Your task to perform on an android device: open chrome and create a bookmark for the current page Image 0: 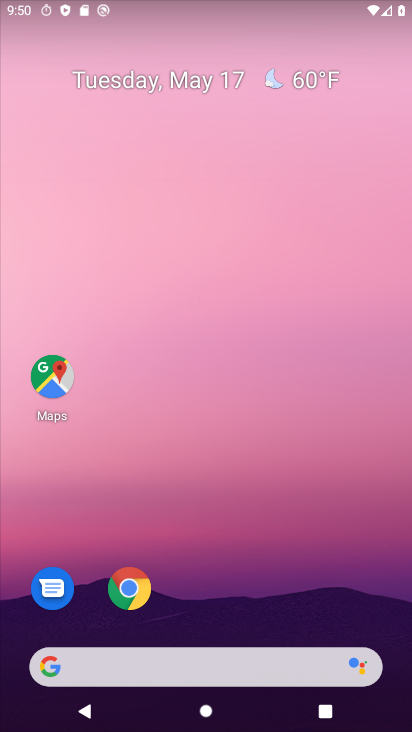
Step 0: drag from (266, 561) to (135, 69)
Your task to perform on an android device: open chrome and create a bookmark for the current page Image 1: 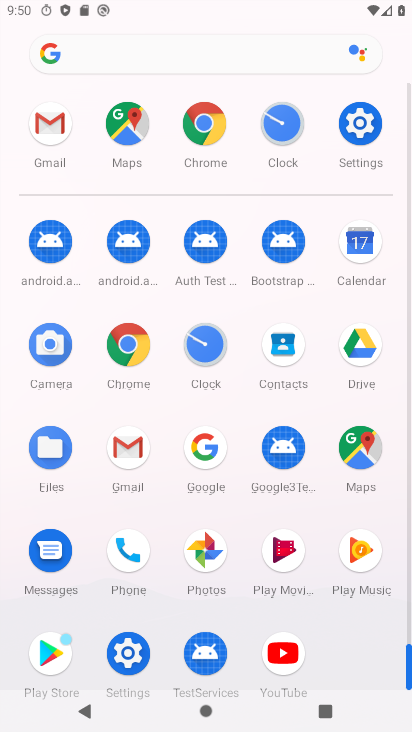
Step 1: click (200, 126)
Your task to perform on an android device: open chrome and create a bookmark for the current page Image 2: 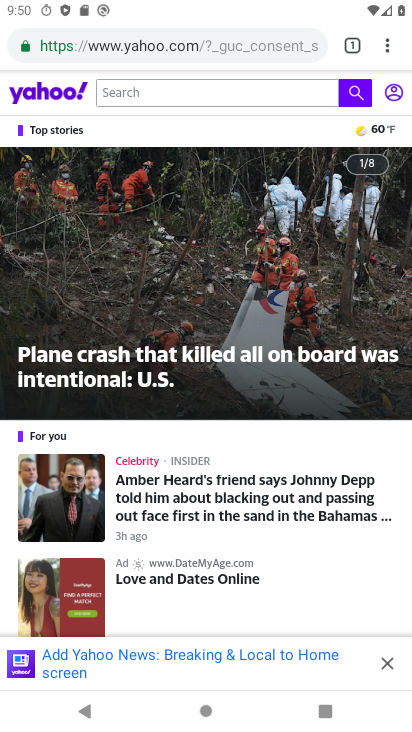
Step 2: drag from (385, 39) to (218, 79)
Your task to perform on an android device: open chrome and create a bookmark for the current page Image 3: 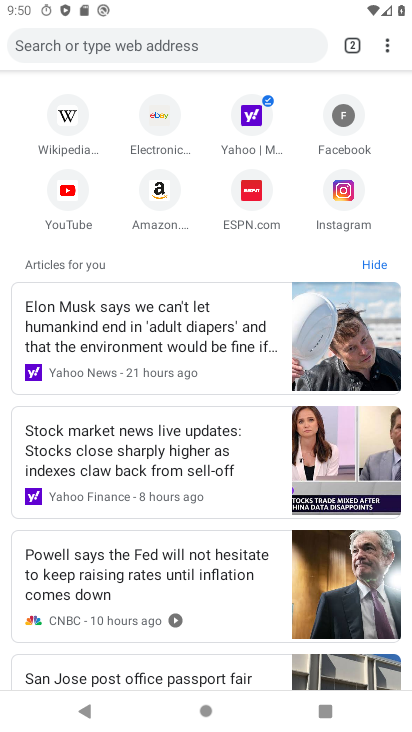
Step 3: click (52, 43)
Your task to perform on an android device: open chrome and create a bookmark for the current page Image 4: 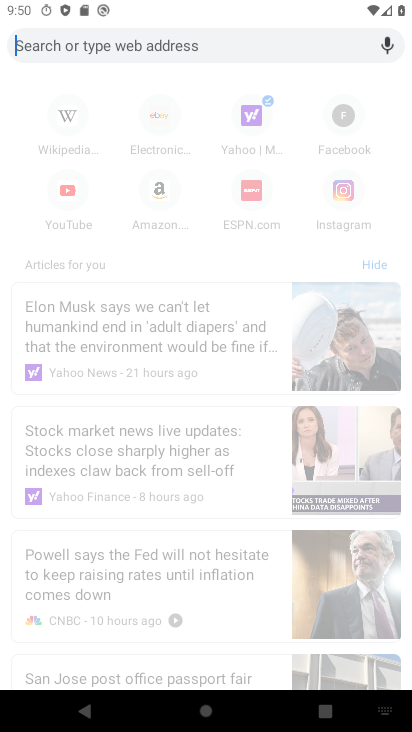
Step 4: type "www.snapdeal.com"
Your task to perform on an android device: open chrome and create a bookmark for the current page Image 5: 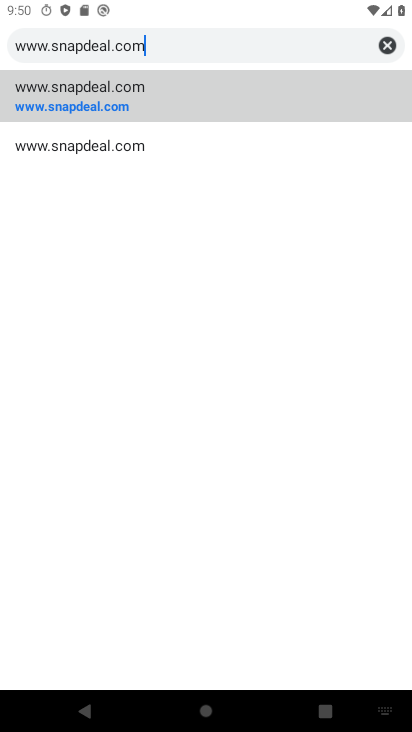
Step 5: drag from (365, 140) to (91, 82)
Your task to perform on an android device: open chrome and create a bookmark for the current page Image 6: 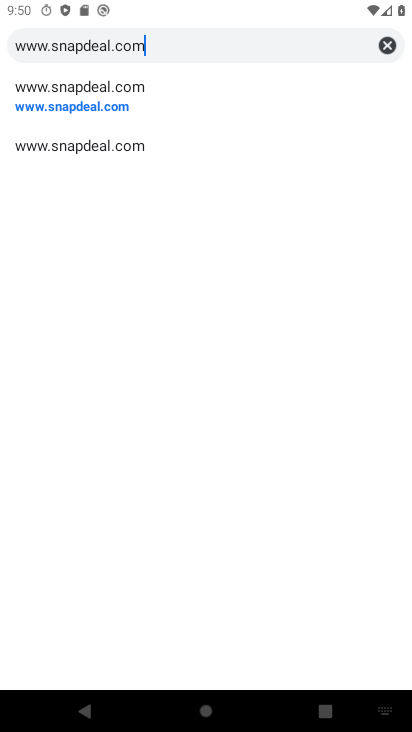
Step 6: click (73, 100)
Your task to perform on an android device: open chrome and create a bookmark for the current page Image 7: 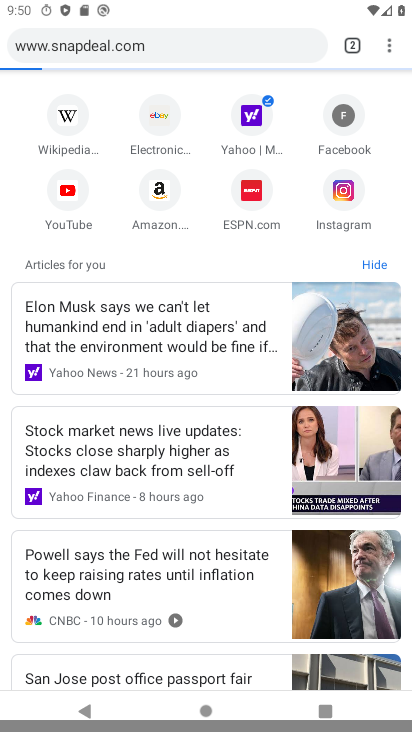
Step 7: drag from (365, 140) to (69, 95)
Your task to perform on an android device: open chrome and create a bookmark for the current page Image 8: 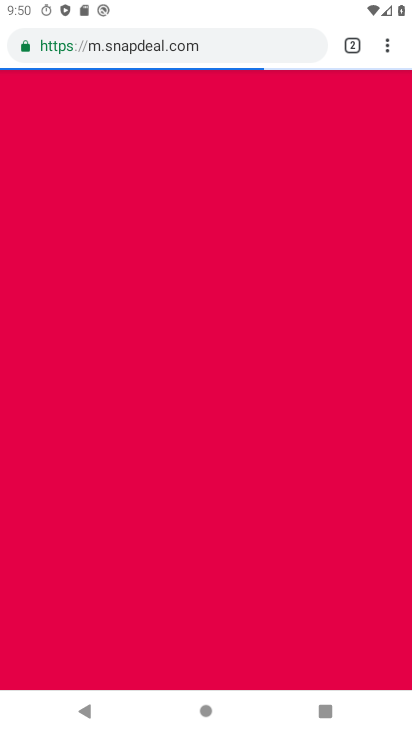
Step 8: drag from (365, 140) to (69, 88)
Your task to perform on an android device: open chrome and create a bookmark for the current page Image 9: 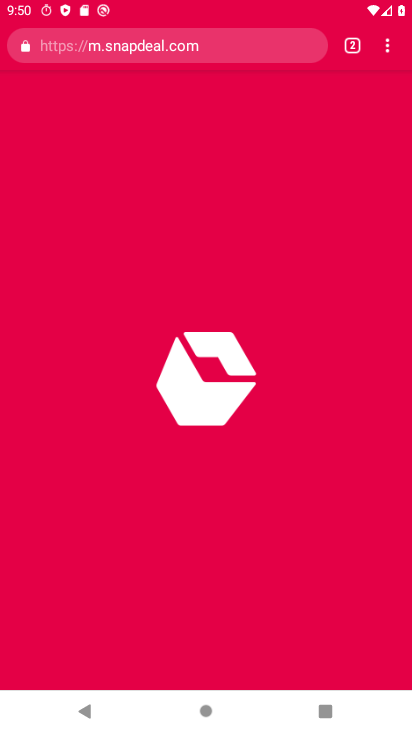
Step 9: click (376, 49)
Your task to perform on an android device: open chrome and create a bookmark for the current page Image 10: 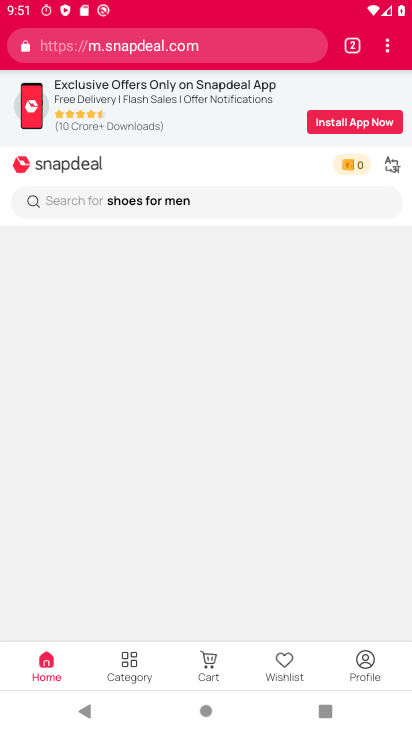
Step 10: click (377, 49)
Your task to perform on an android device: open chrome and create a bookmark for the current page Image 11: 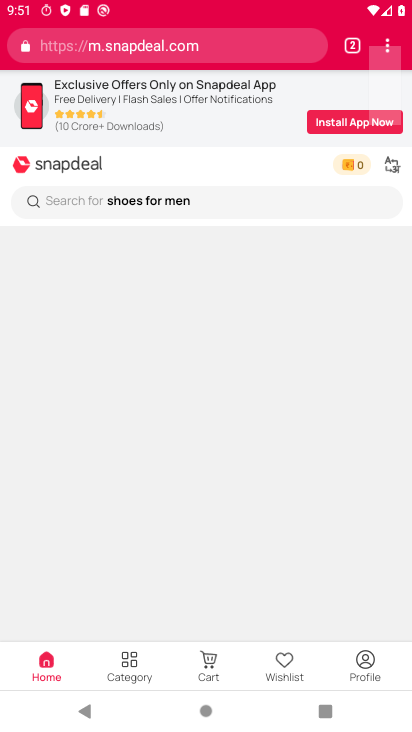
Step 11: click (404, 22)
Your task to perform on an android device: open chrome and create a bookmark for the current page Image 12: 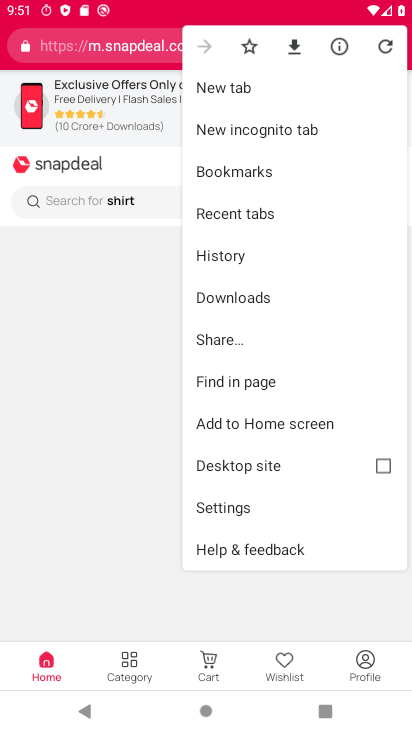
Step 12: drag from (384, 37) to (203, 166)
Your task to perform on an android device: open chrome and create a bookmark for the current page Image 13: 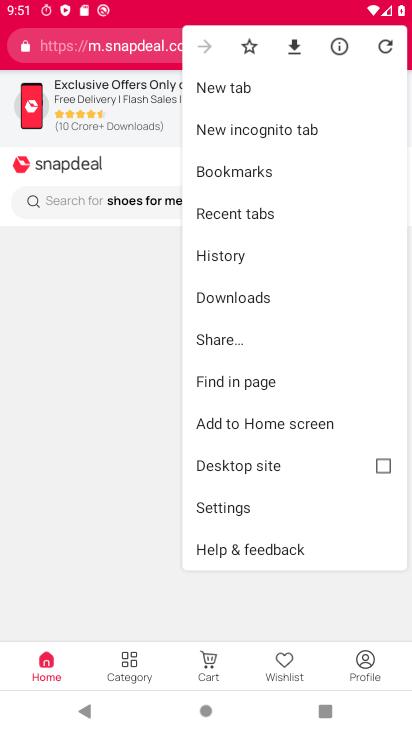
Step 13: click (203, 166)
Your task to perform on an android device: open chrome and create a bookmark for the current page Image 14: 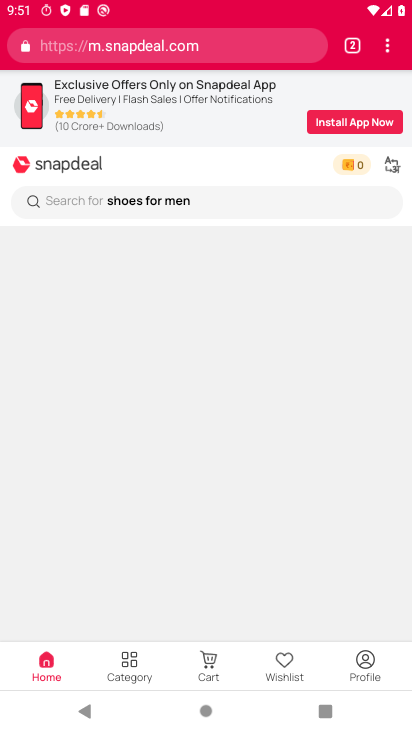
Step 14: click (223, 164)
Your task to perform on an android device: open chrome and create a bookmark for the current page Image 15: 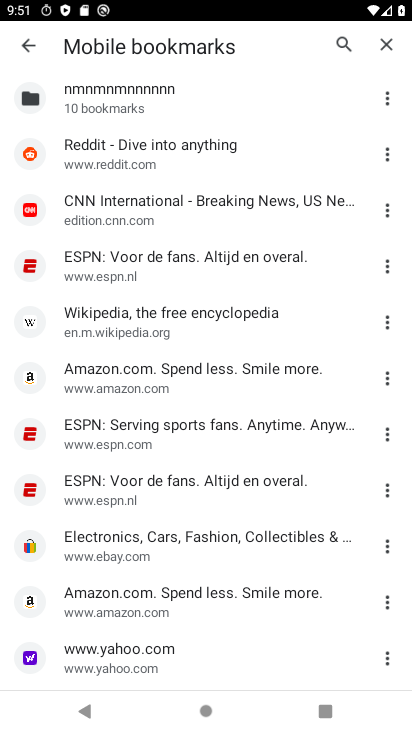
Step 15: press back button
Your task to perform on an android device: open chrome and create a bookmark for the current page Image 16: 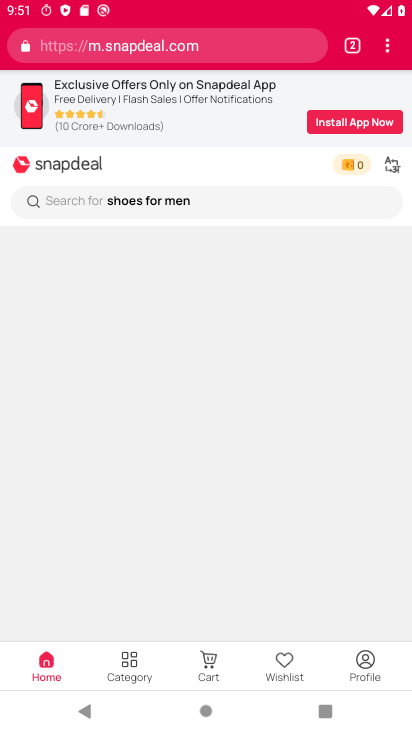
Step 16: press home button
Your task to perform on an android device: open chrome and create a bookmark for the current page Image 17: 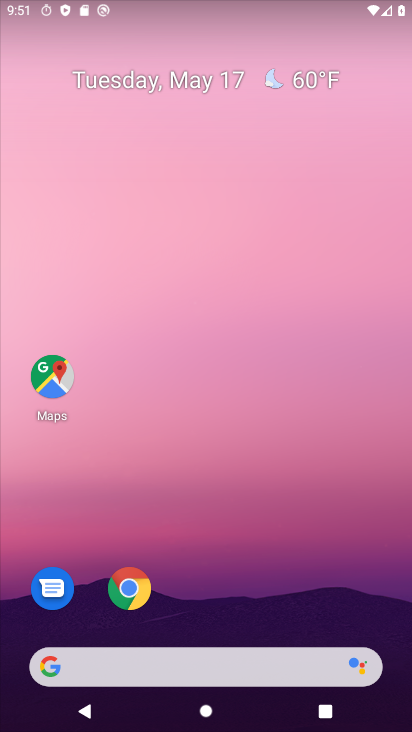
Step 17: drag from (183, 578) to (8, 59)
Your task to perform on an android device: open chrome and create a bookmark for the current page Image 18: 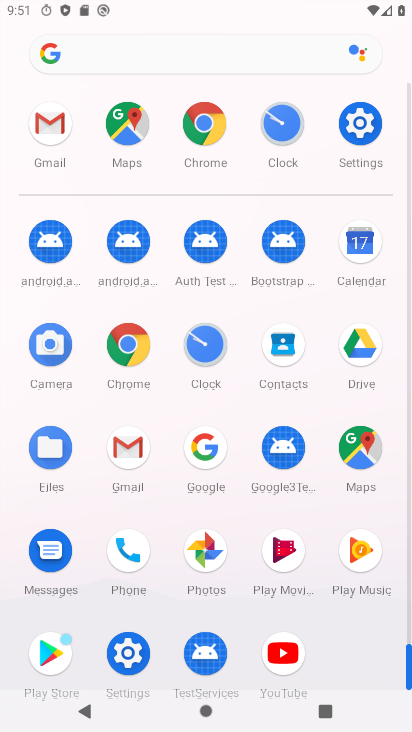
Step 18: drag from (217, 301) to (158, 7)
Your task to perform on an android device: open chrome and create a bookmark for the current page Image 19: 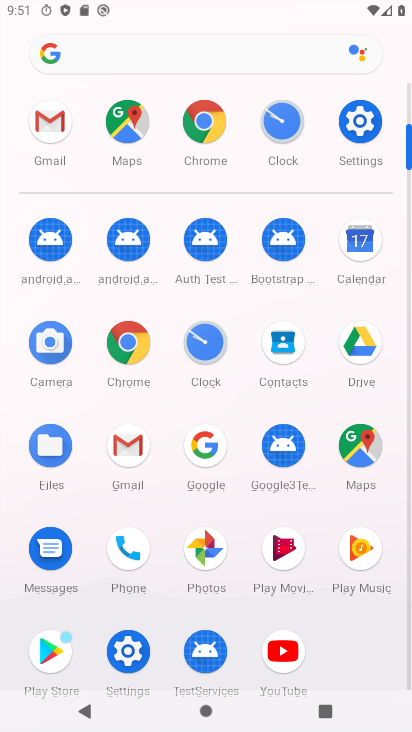
Step 19: click (409, 213)
Your task to perform on an android device: open chrome and create a bookmark for the current page Image 20: 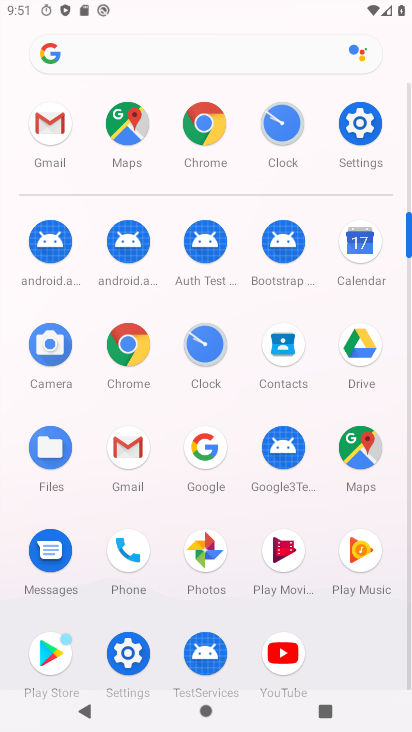
Step 20: drag from (409, 213) to (197, 106)
Your task to perform on an android device: open chrome and create a bookmark for the current page Image 21: 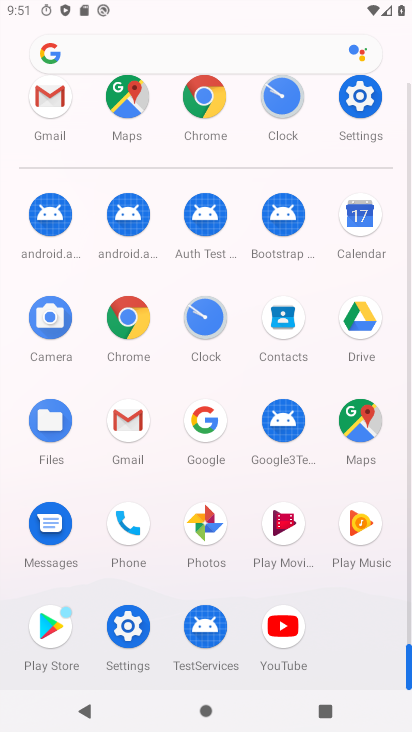
Step 21: drag from (409, 213) to (193, 118)
Your task to perform on an android device: open chrome and create a bookmark for the current page Image 22: 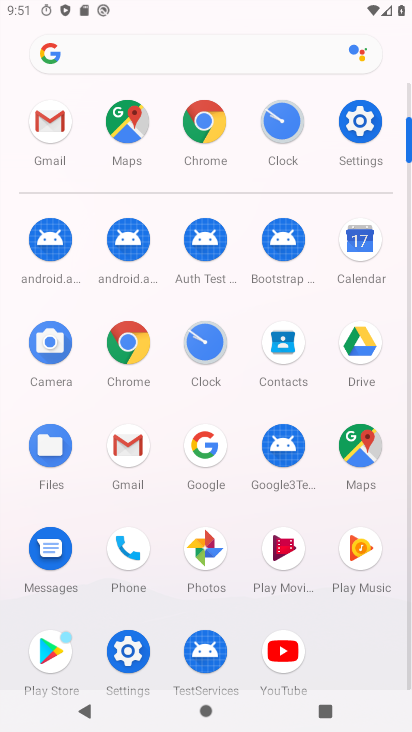
Step 22: drag from (409, 213) to (197, 107)
Your task to perform on an android device: open chrome and create a bookmark for the current page Image 23: 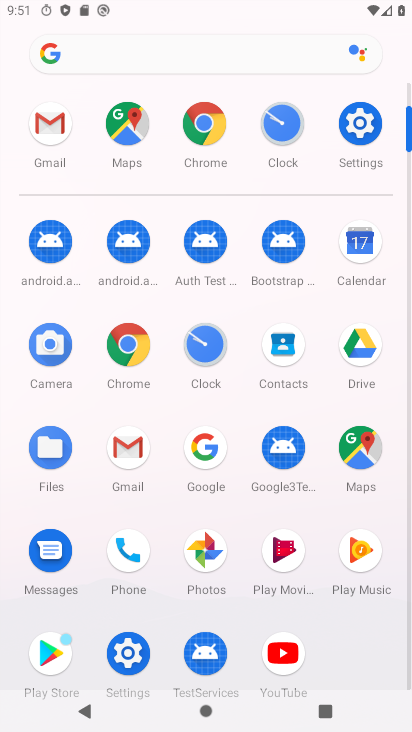
Step 23: click (200, 104)
Your task to perform on an android device: open chrome and create a bookmark for the current page Image 24: 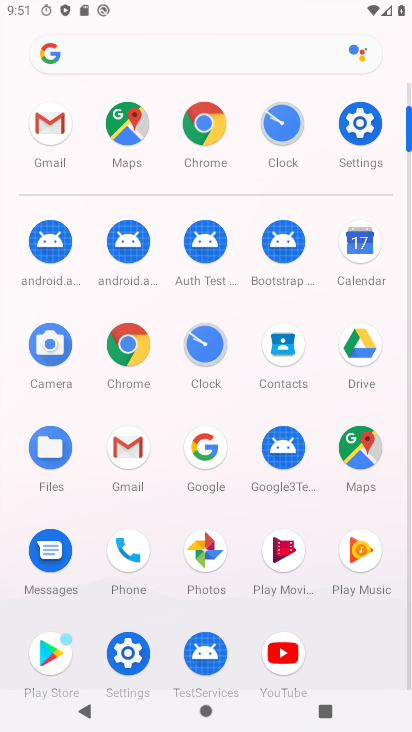
Step 24: click (409, 213)
Your task to perform on an android device: open chrome and create a bookmark for the current page Image 25: 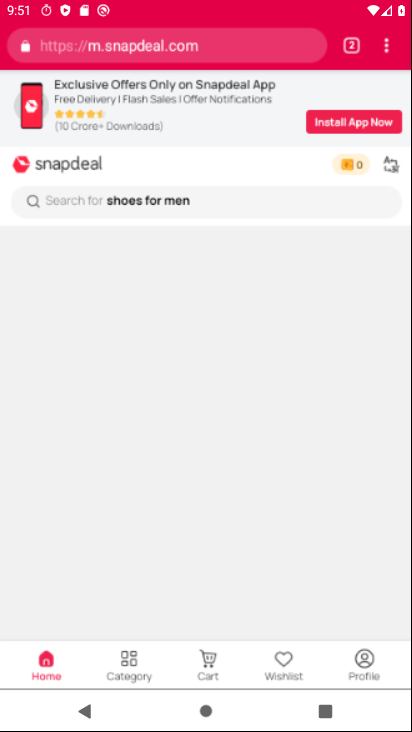
Step 25: drag from (409, 213) to (193, 120)
Your task to perform on an android device: open chrome and create a bookmark for the current page Image 26: 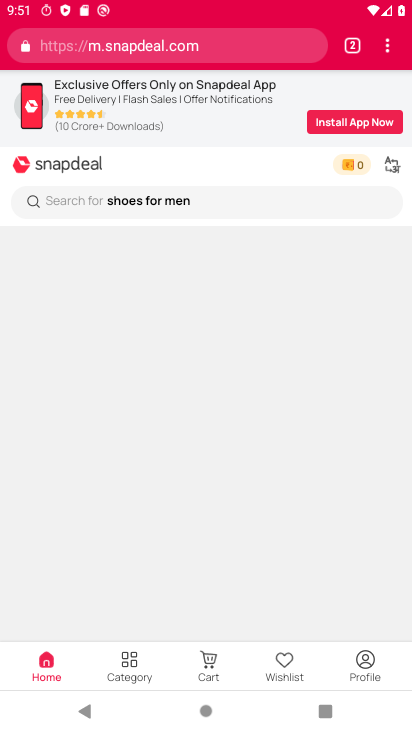
Step 26: click (193, 120)
Your task to perform on an android device: open chrome and create a bookmark for the current page Image 27: 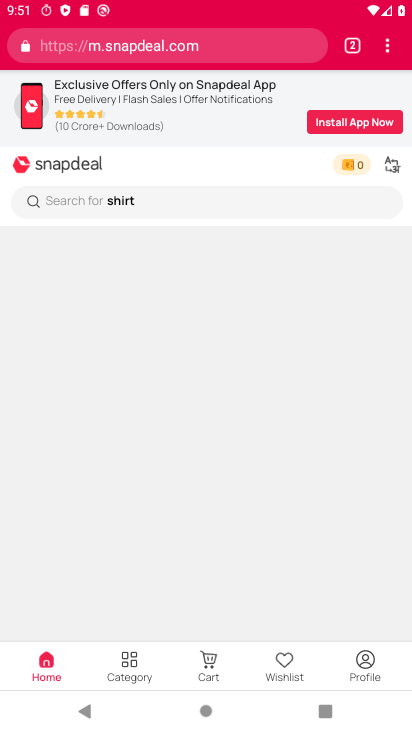
Step 27: click (376, 38)
Your task to perform on an android device: open chrome and create a bookmark for the current page Image 28: 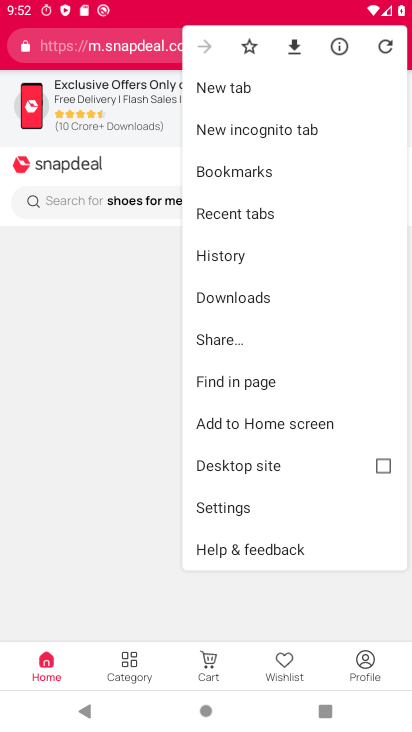
Step 28: click (389, 36)
Your task to perform on an android device: open chrome and create a bookmark for the current page Image 29: 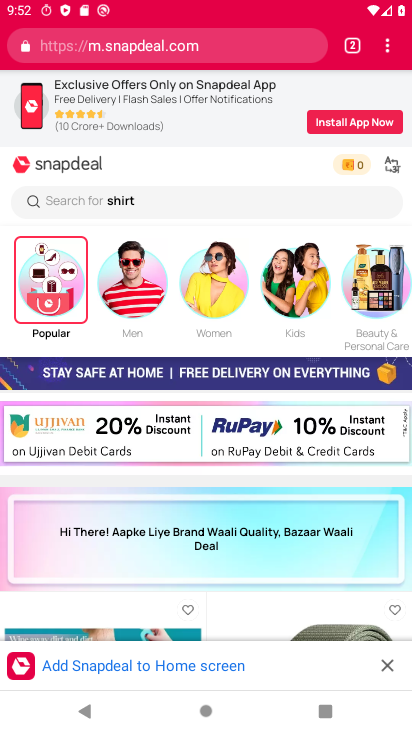
Step 29: click (389, 36)
Your task to perform on an android device: open chrome and create a bookmark for the current page Image 30: 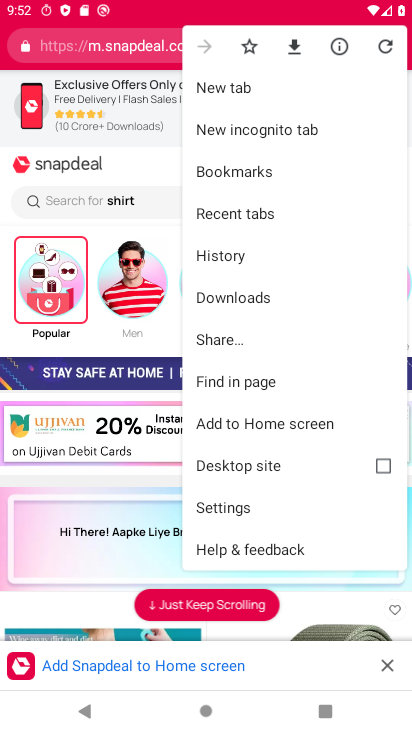
Step 30: drag from (389, 36) to (230, 159)
Your task to perform on an android device: open chrome and create a bookmark for the current page Image 31: 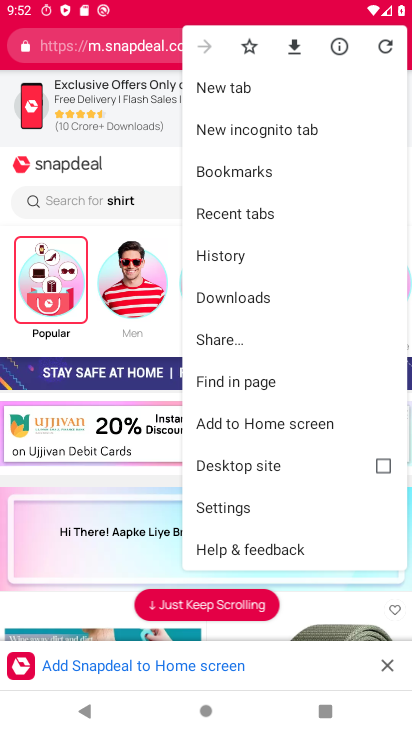
Step 31: drag from (389, 36) to (218, 156)
Your task to perform on an android device: open chrome and create a bookmark for the current page Image 32: 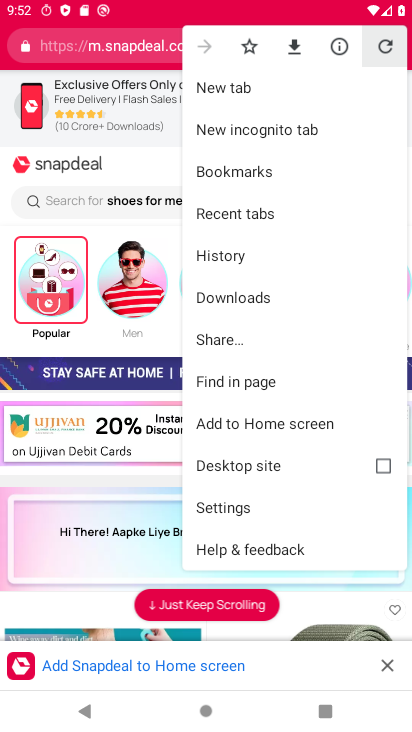
Step 32: click (389, 36)
Your task to perform on an android device: open chrome and create a bookmark for the current page Image 33: 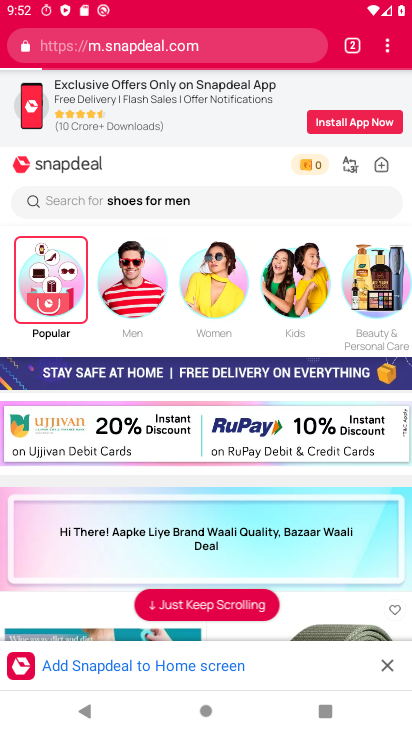
Step 33: task complete